Your task to perform on an android device: Turn off the flashlight Image 0: 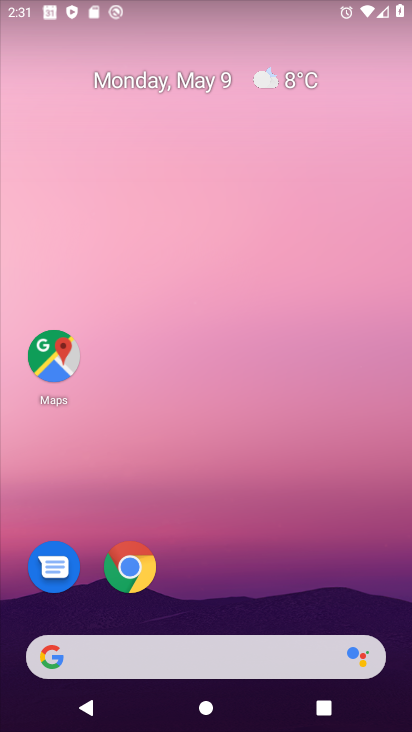
Step 0: drag from (236, 454) to (243, 295)
Your task to perform on an android device: Turn off the flashlight Image 1: 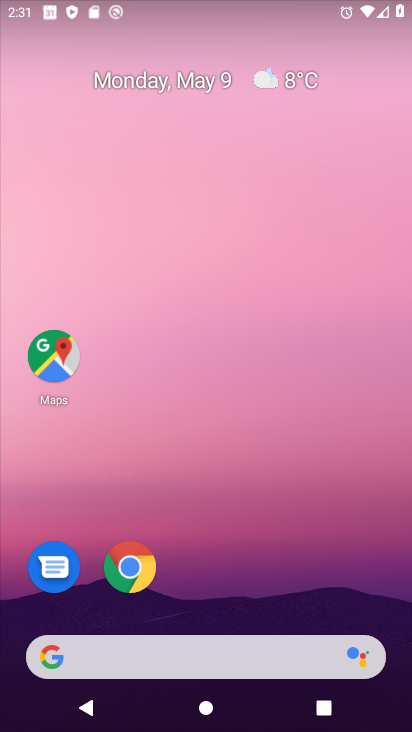
Step 1: drag from (263, 610) to (297, 312)
Your task to perform on an android device: Turn off the flashlight Image 2: 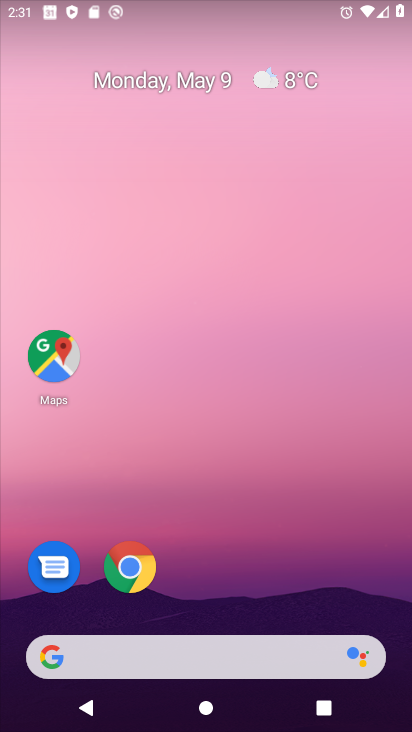
Step 2: drag from (246, 612) to (262, 349)
Your task to perform on an android device: Turn off the flashlight Image 3: 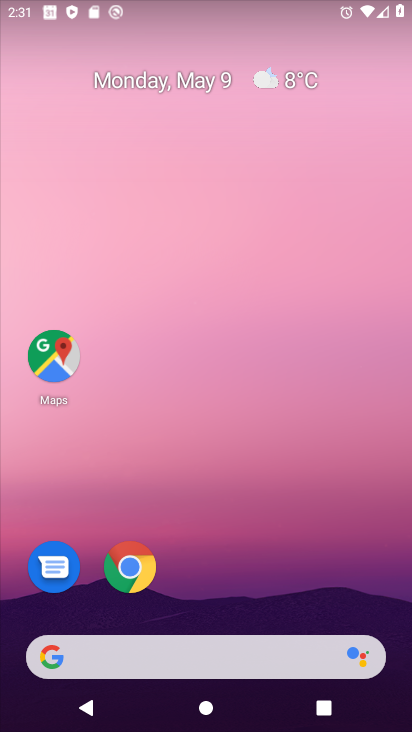
Step 3: drag from (210, 590) to (271, 281)
Your task to perform on an android device: Turn off the flashlight Image 4: 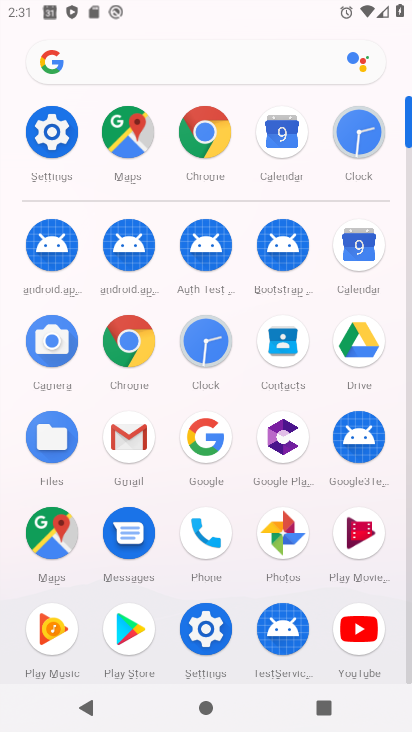
Step 4: click (47, 117)
Your task to perform on an android device: Turn off the flashlight Image 5: 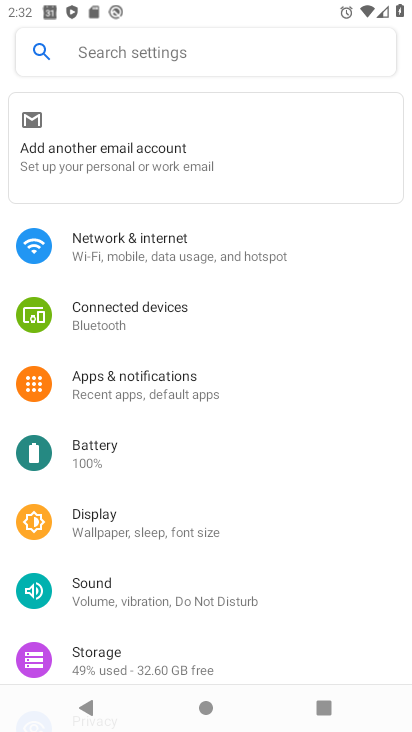
Step 5: task complete